Your task to perform on an android device: Open the phone app and click the voicemail tab. Image 0: 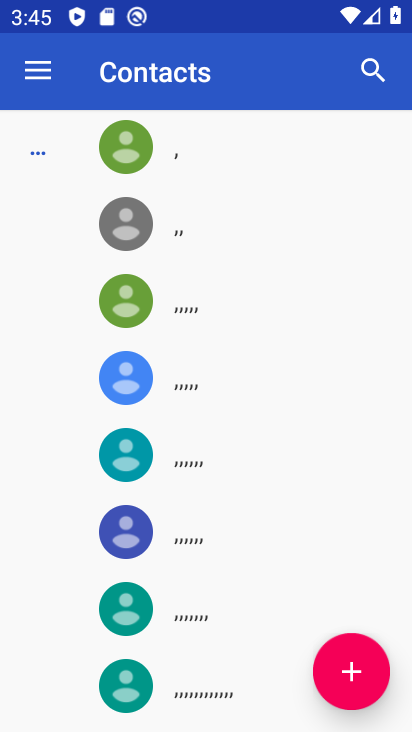
Step 0: press home button
Your task to perform on an android device: Open the phone app and click the voicemail tab. Image 1: 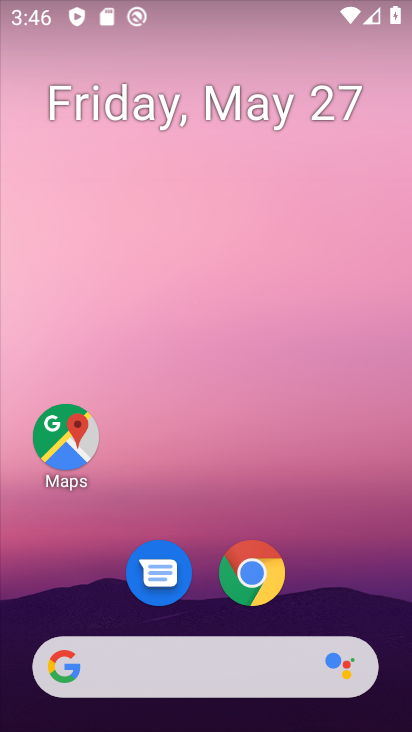
Step 1: drag from (377, 603) to (384, 122)
Your task to perform on an android device: Open the phone app and click the voicemail tab. Image 2: 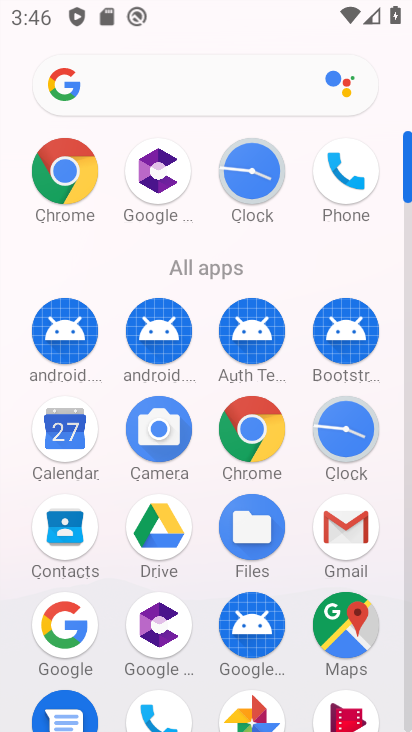
Step 2: click (362, 193)
Your task to perform on an android device: Open the phone app and click the voicemail tab. Image 3: 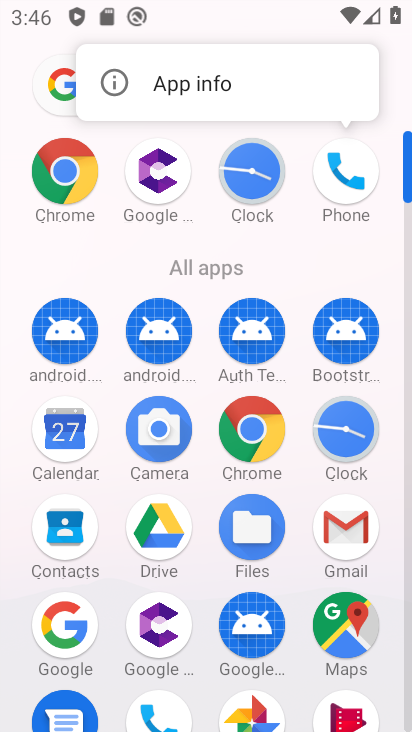
Step 3: click (362, 193)
Your task to perform on an android device: Open the phone app and click the voicemail tab. Image 4: 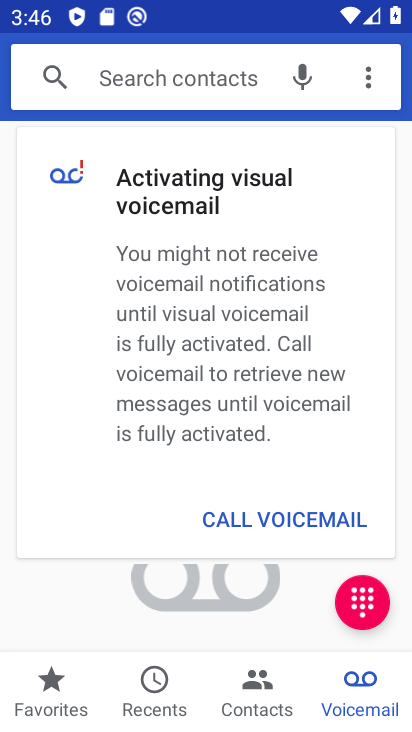
Step 4: task complete